Your task to perform on an android device: Open accessibility settings Image 0: 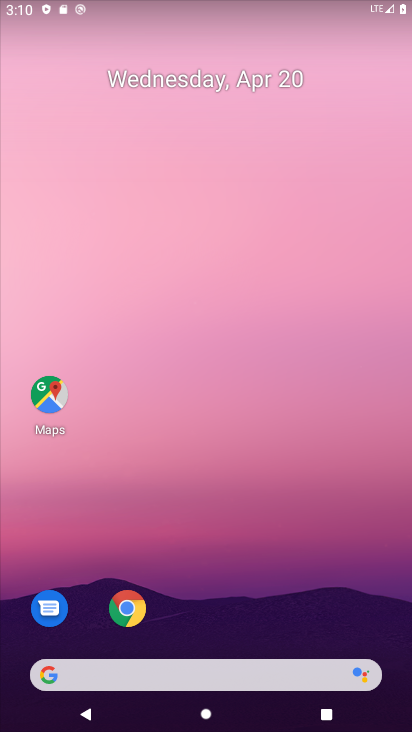
Step 0: drag from (249, 611) to (143, 9)
Your task to perform on an android device: Open accessibility settings Image 1: 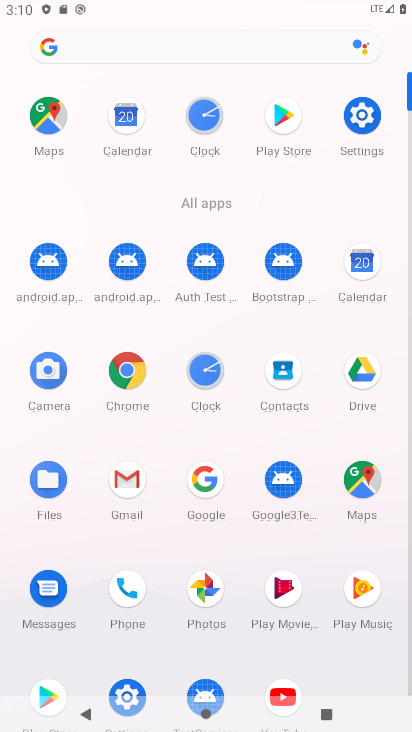
Step 1: click (360, 127)
Your task to perform on an android device: Open accessibility settings Image 2: 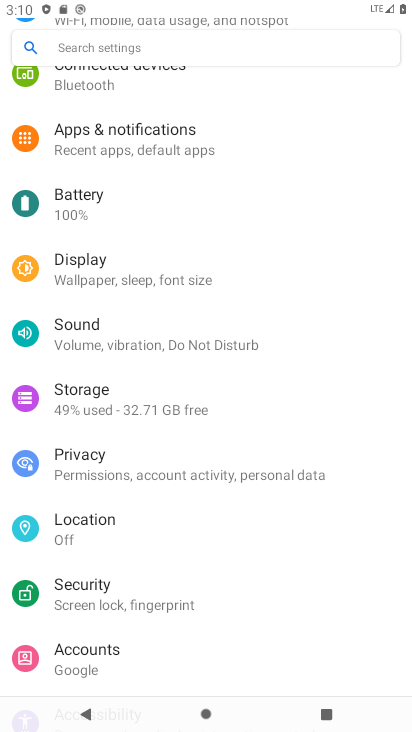
Step 2: drag from (182, 595) to (156, 342)
Your task to perform on an android device: Open accessibility settings Image 3: 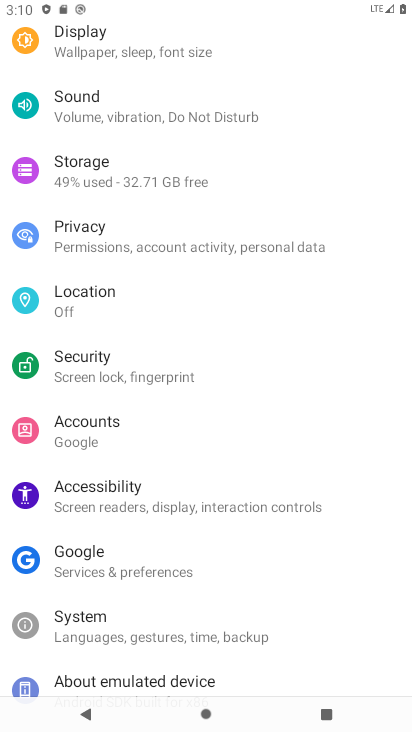
Step 3: click (115, 502)
Your task to perform on an android device: Open accessibility settings Image 4: 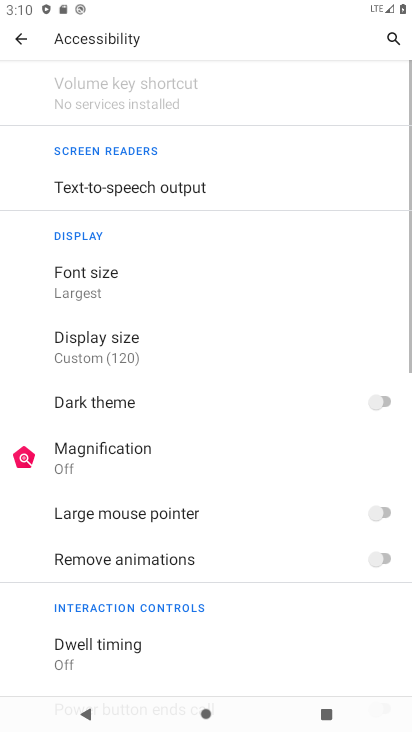
Step 4: task complete